Your task to perform on an android device: toggle show notifications on the lock screen Image 0: 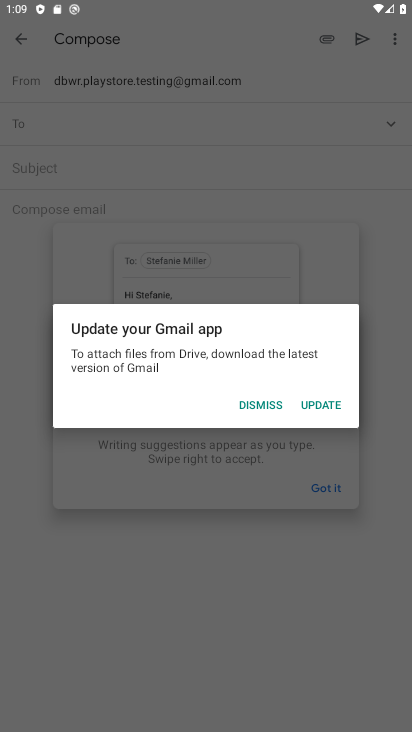
Step 0: press home button
Your task to perform on an android device: toggle show notifications on the lock screen Image 1: 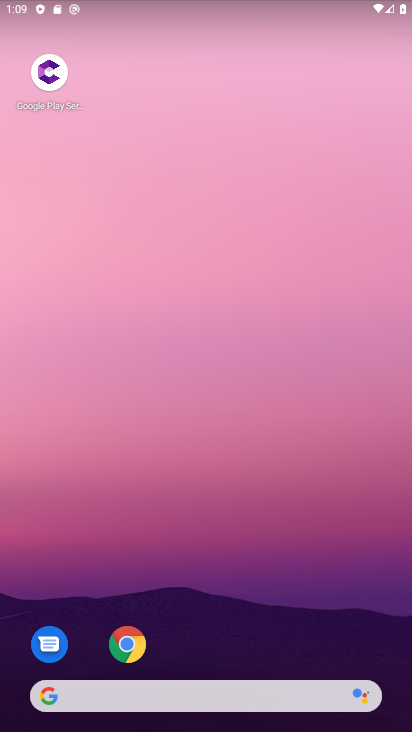
Step 1: drag from (284, 594) to (283, 158)
Your task to perform on an android device: toggle show notifications on the lock screen Image 2: 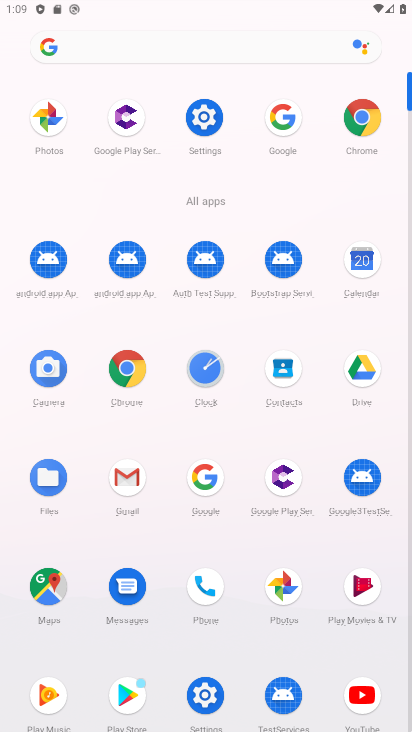
Step 2: click (203, 123)
Your task to perform on an android device: toggle show notifications on the lock screen Image 3: 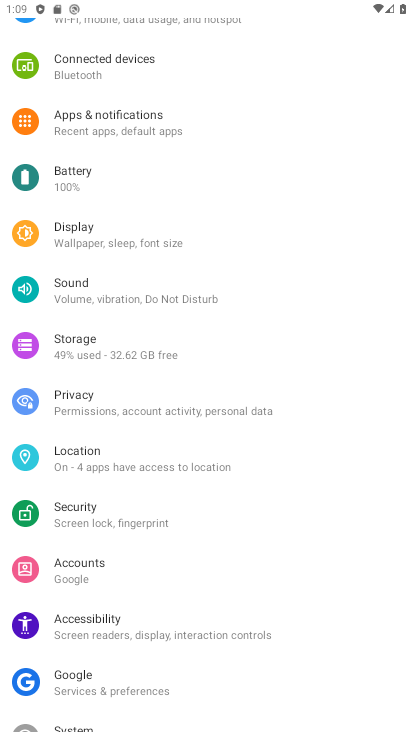
Step 3: click (155, 130)
Your task to perform on an android device: toggle show notifications on the lock screen Image 4: 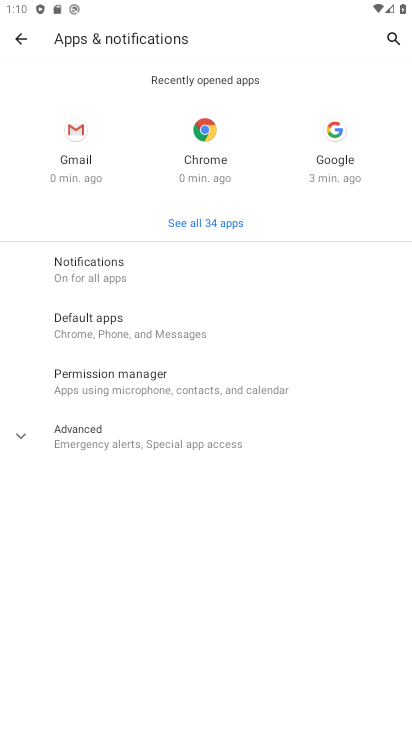
Step 4: click (108, 273)
Your task to perform on an android device: toggle show notifications on the lock screen Image 5: 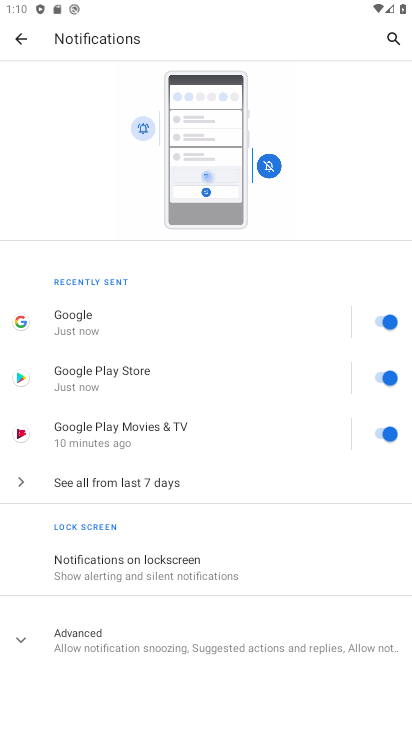
Step 5: click (219, 578)
Your task to perform on an android device: toggle show notifications on the lock screen Image 6: 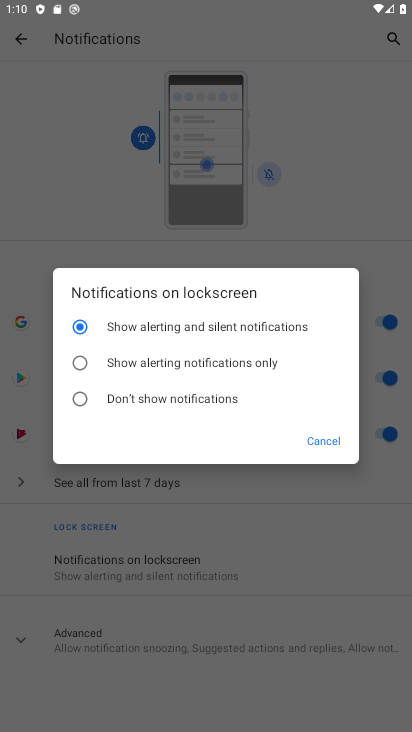
Step 6: task complete